Your task to perform on an android device: open app "Flipkart Online Shopping App" (install if not already installed) and go to login screen Image 0: 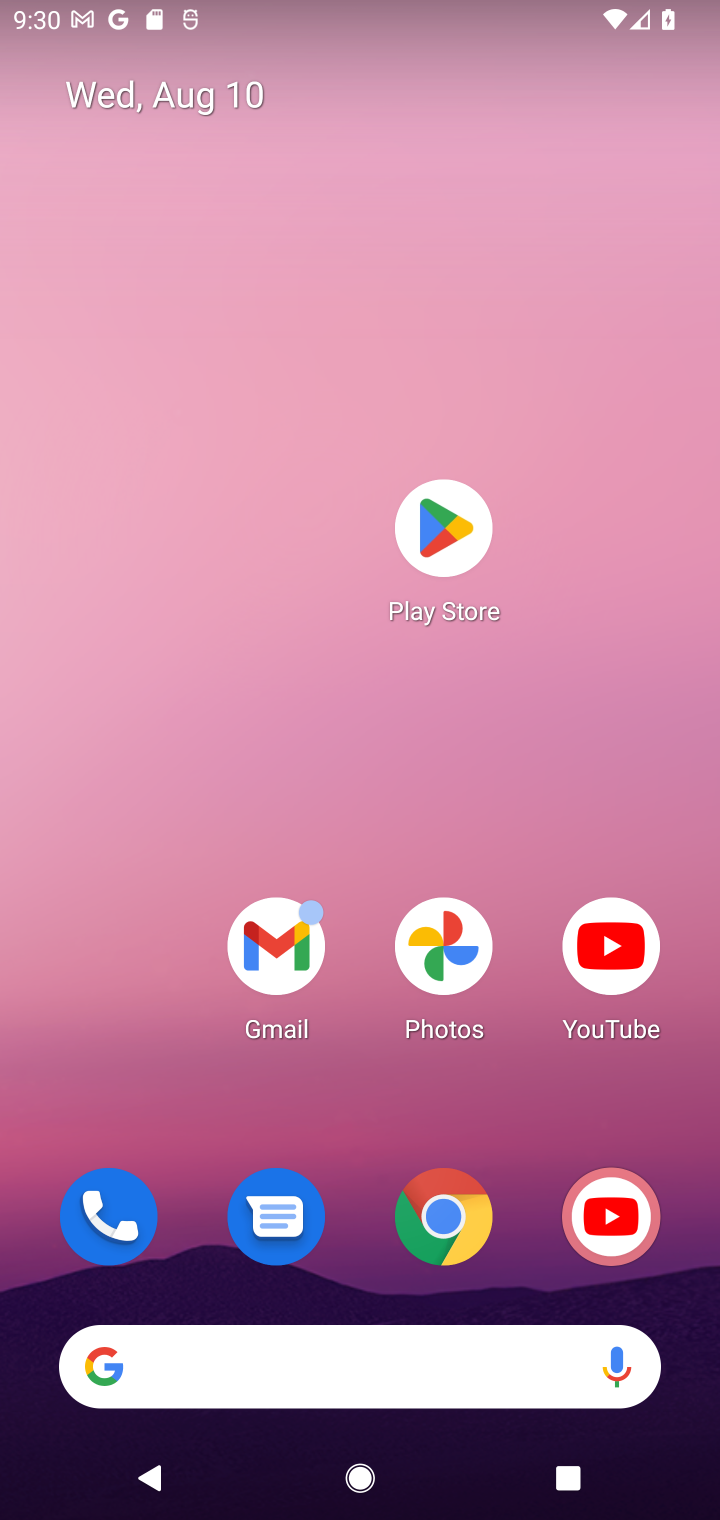
Step 0: click (454, 543)
Your task to perform on an android device: open app "Flipkart Online Shopping App" (install if not already installed) and go to login screen Image 1: 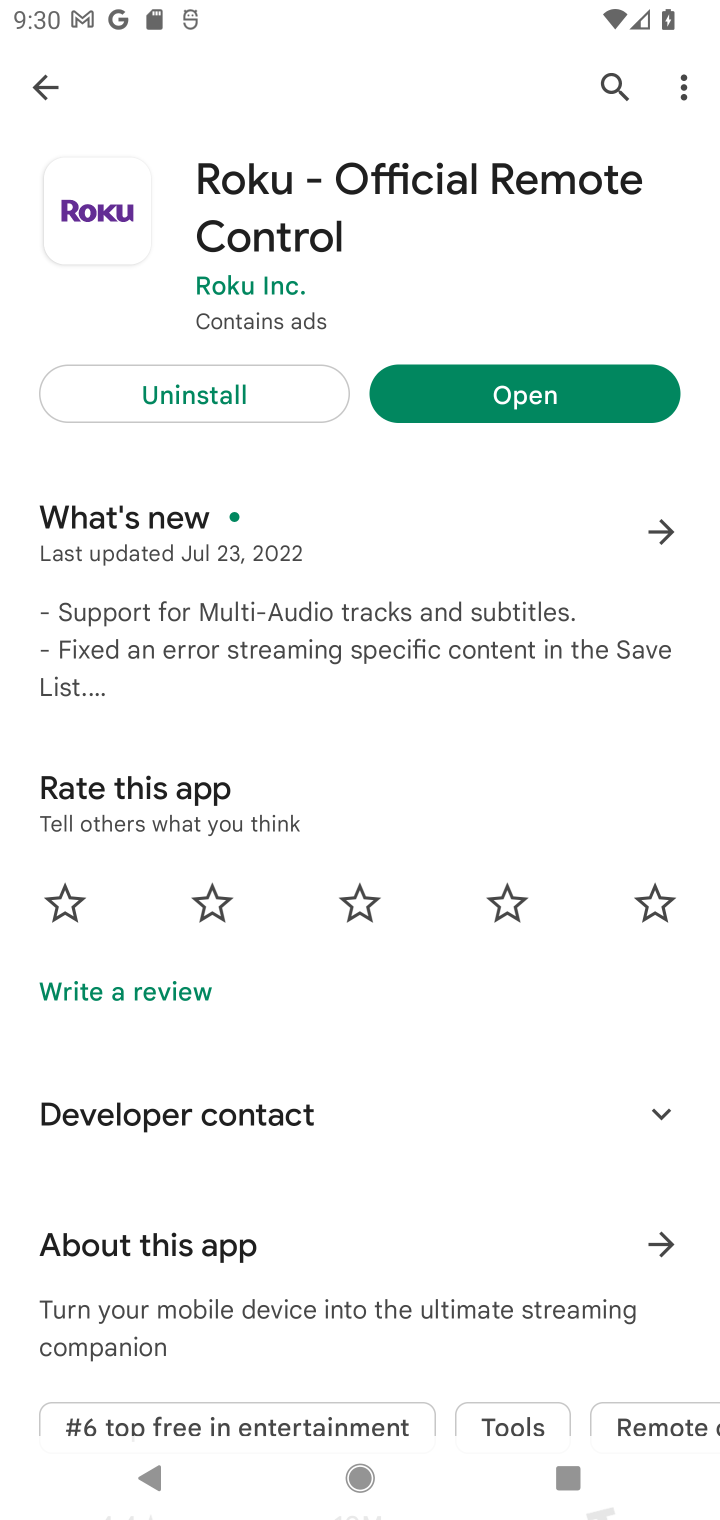
Step 1: click (602, 77)
Your task to perform on an android device: open app "Flipkart Online Shopping App" (install if not already installed) and go to login screen Image 2: 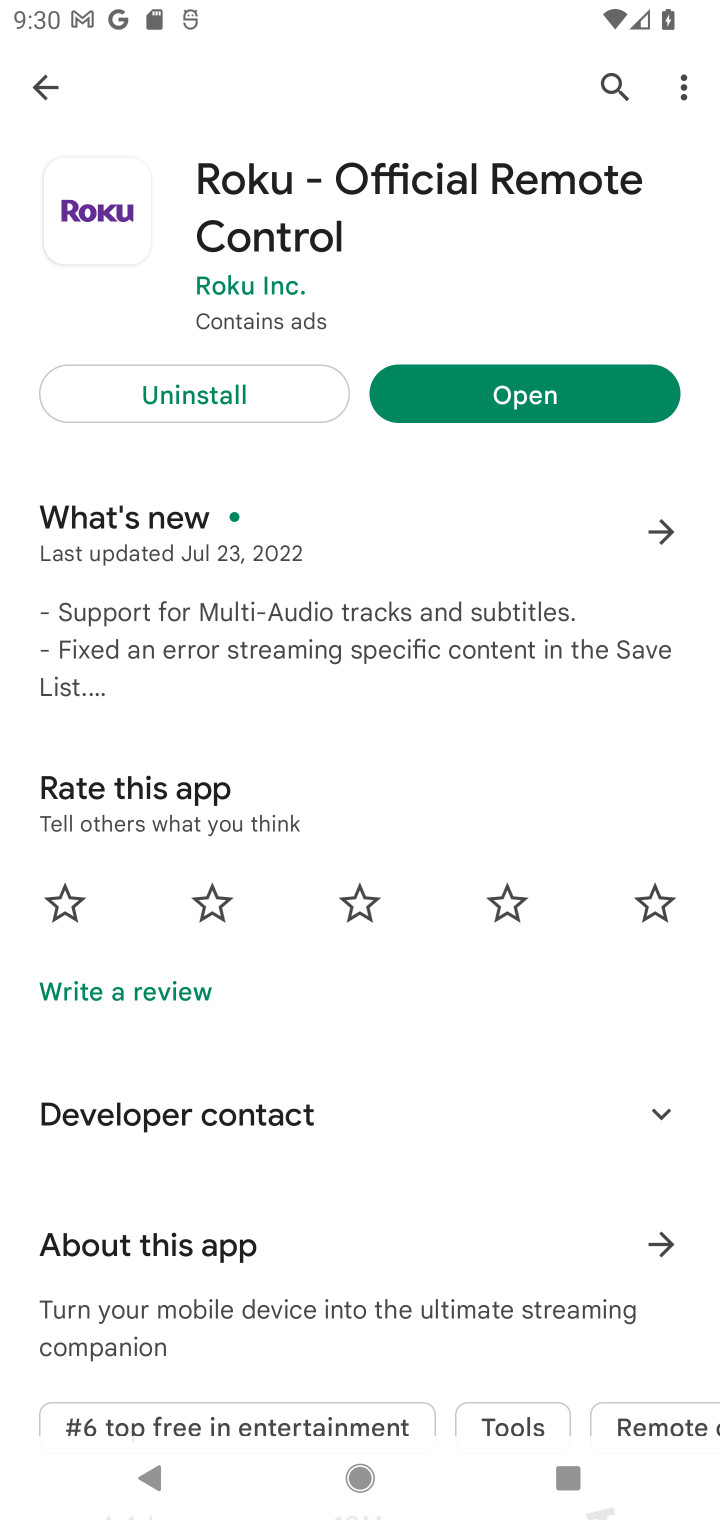
Step 2: click (602, 78)
Your task to perform on an android device: open app "Flipkart Online Shopping App" (install if not already installed) and go to login screen Image 3: 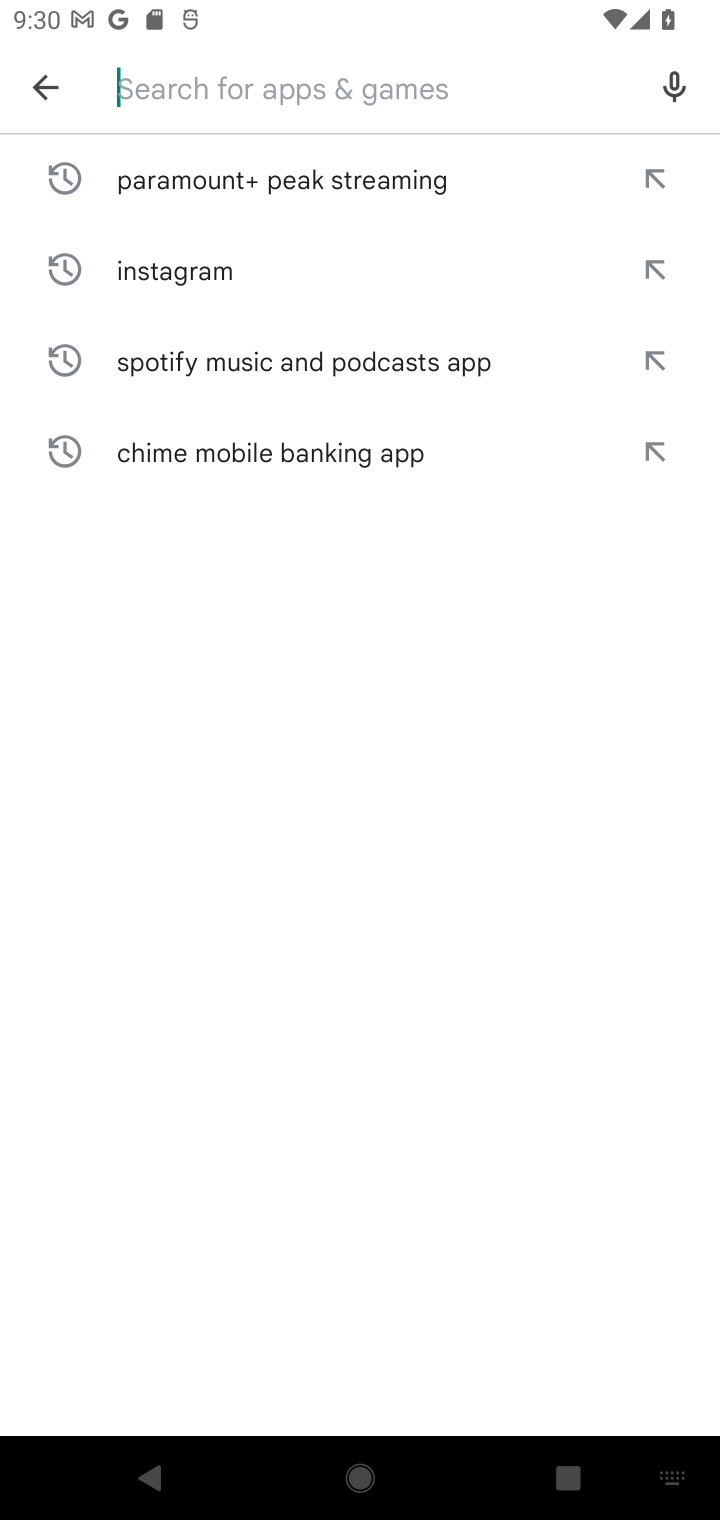
Step 3: type "Flipkart Online Shopping App"
Your task to perform on an android device: open app "Flipkart Online Shopping App" (install if not already installed) and go to login screen Image 4: 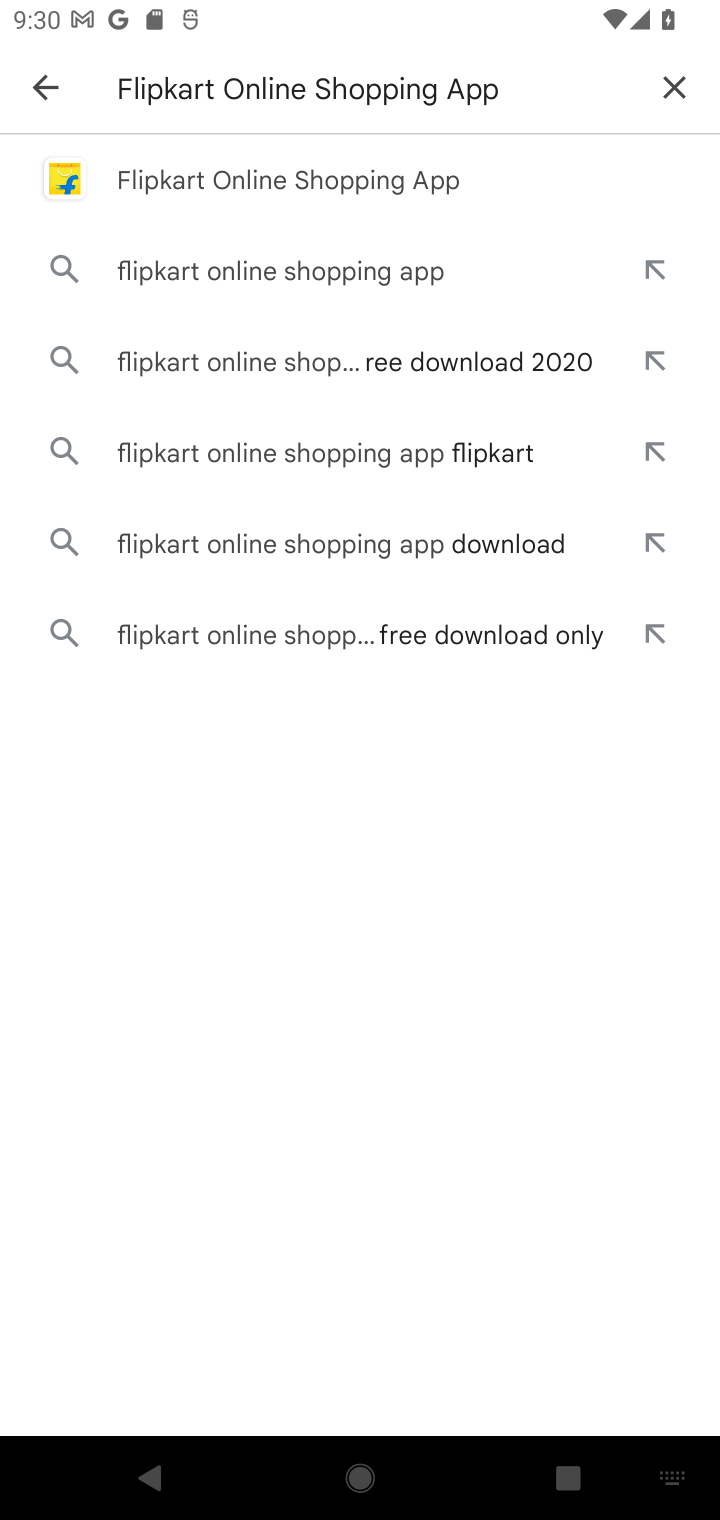
Step 4: click (234, 179)
Your task to perform on an android device: open app "Flipkart Online Shopping App" (install if not already installed) and go to login screen Image 5: 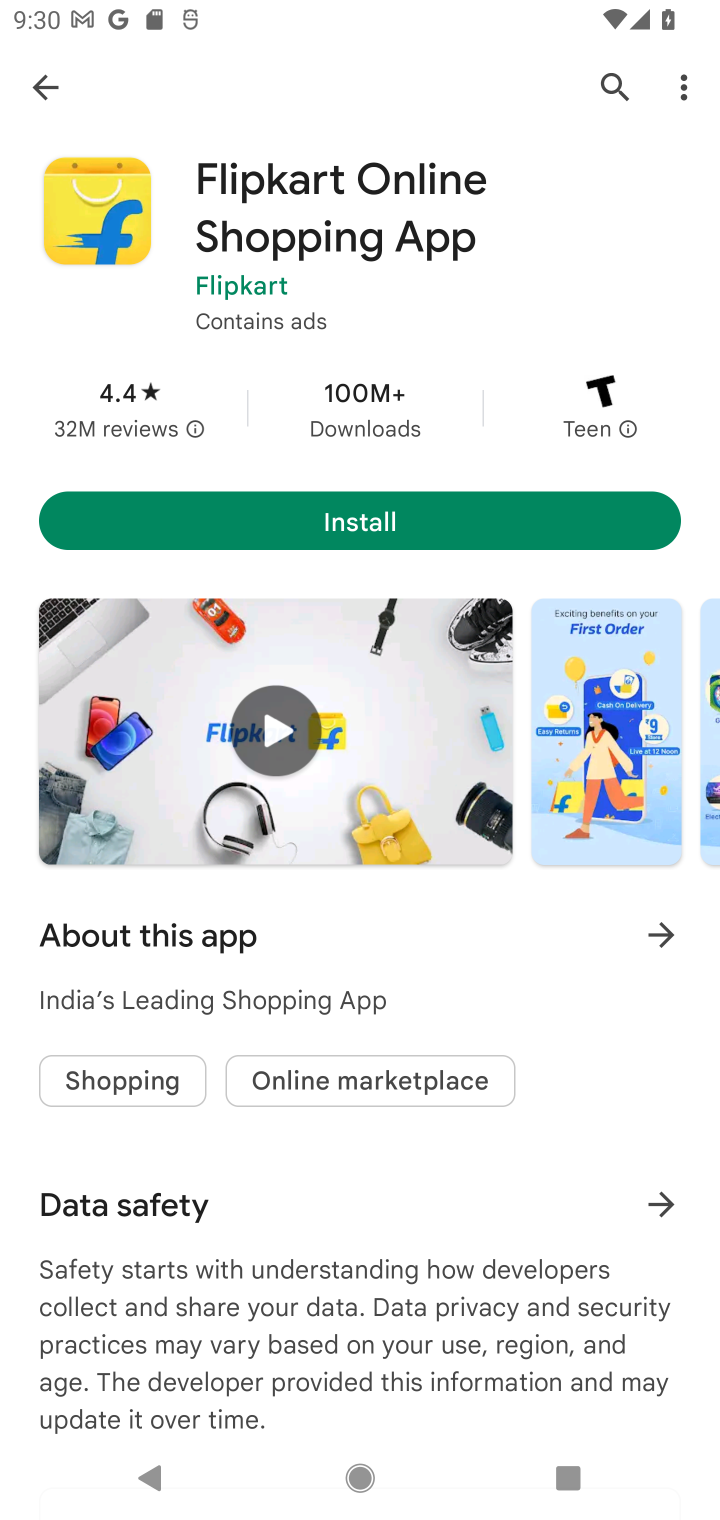
Step 5: click (372, 504)
Your task to perform on an android device: open app "Flipkart Online Shopping App" (install if not already installed) and go to login screen Image 6: 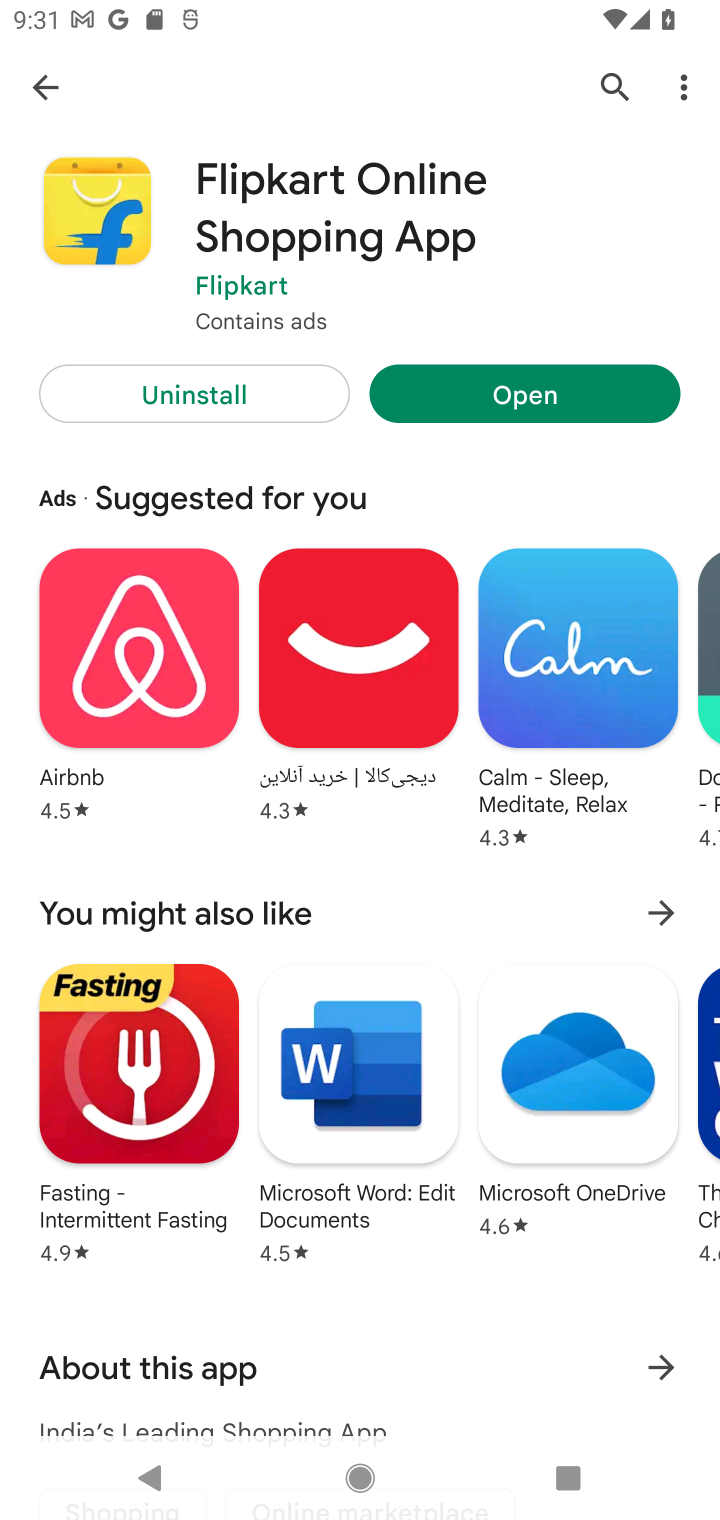
Step 6: click (520, 405)
Your task to perform on an android device: open app "Flipkart Online Shopping App" (install if not already installed) and go to login screen Image 7: 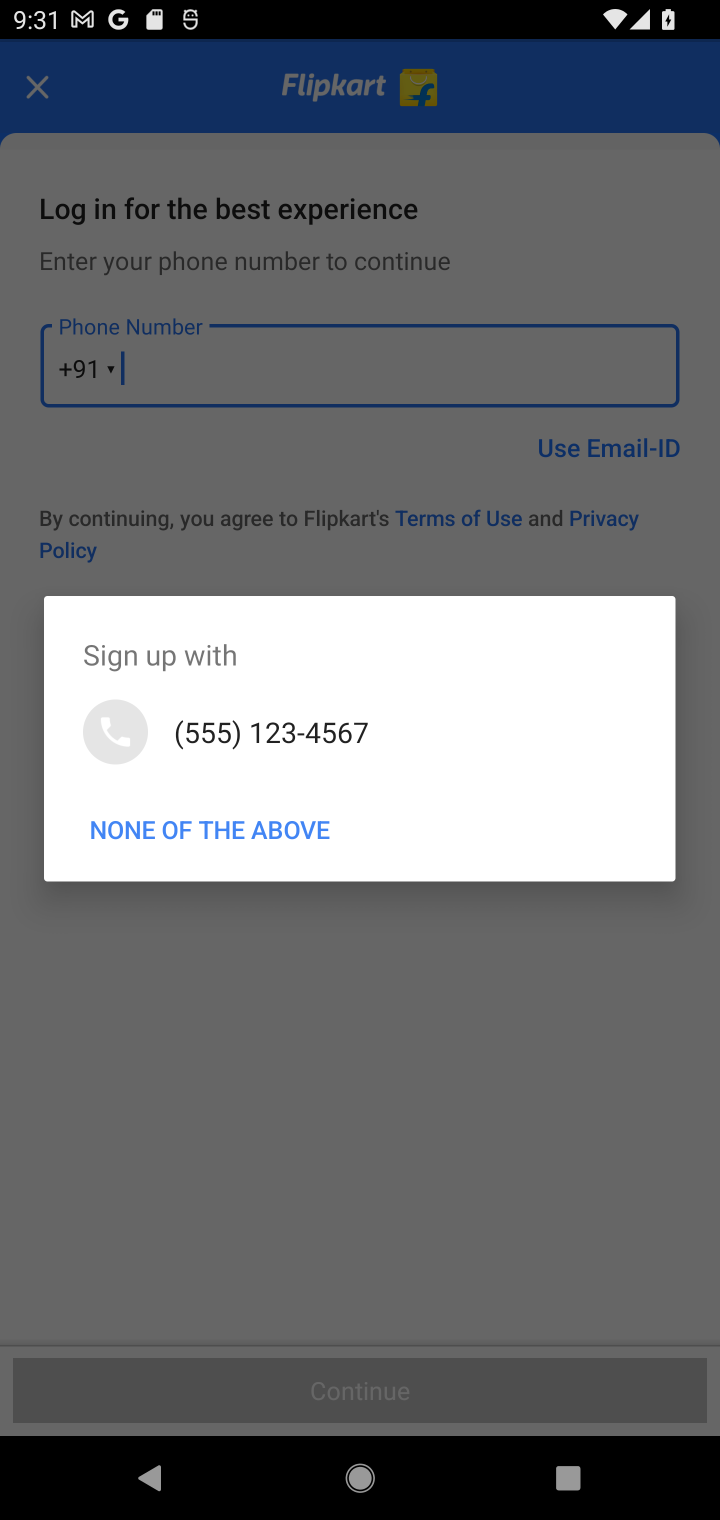
Step 7: task complete